Your task to perform on an android device: Open Youtube and go to the subscriptions tab Image 0: 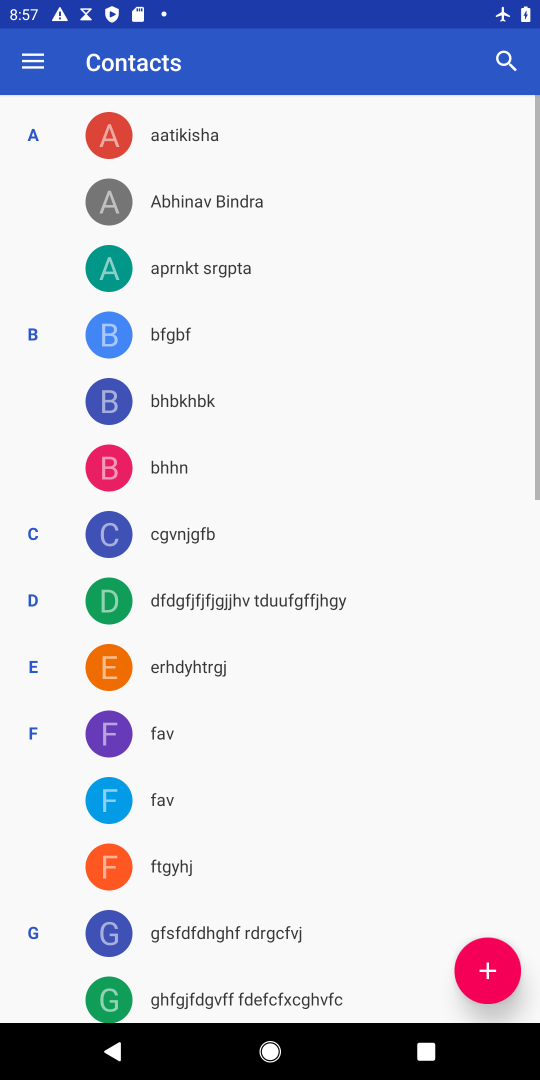
Step 0: press home button
Your task to perform on an android device: Open Youtube and go to the subscriptions tab Image 1: 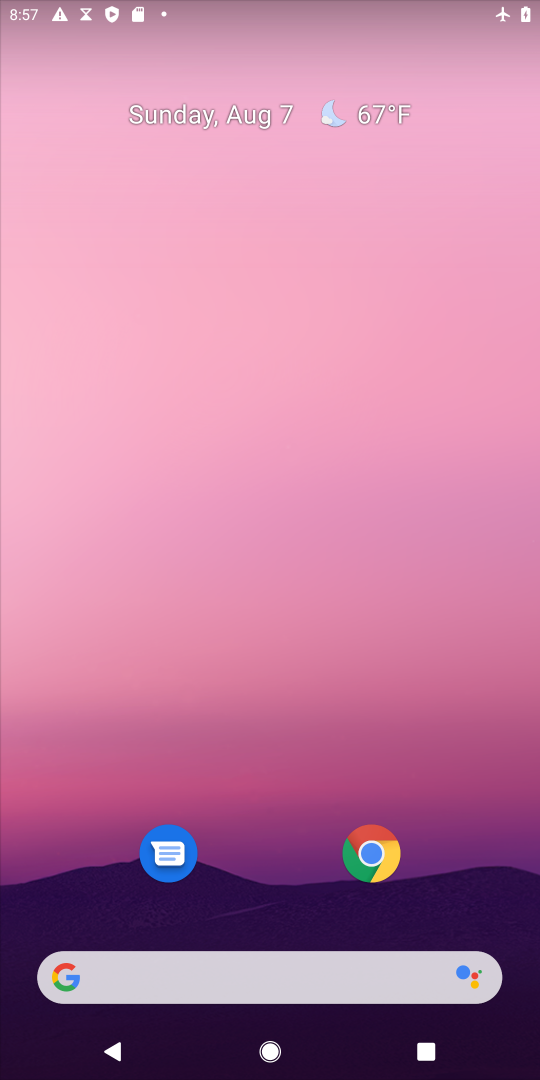
Step 1: drag from (262, 933) to (264, 129)
Your task to perform on an android device: Open Youtube and go to the subscriptions tab Image 2: 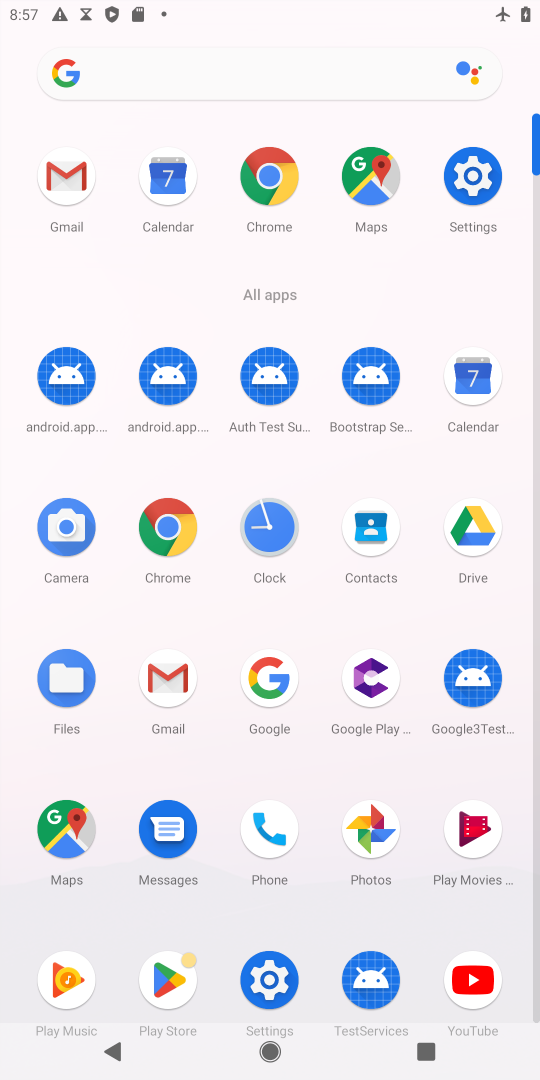
Step 2: drag from (292, 933) to (337, 368)
Your task to perform on an android device: Open Youtube and go to the subscriptions tab Image 3: 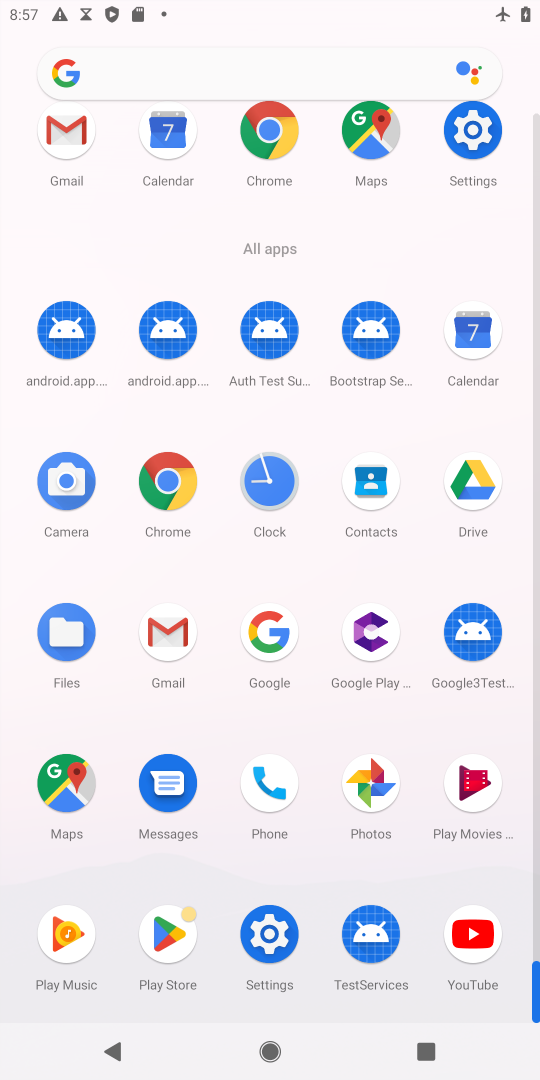
Step 3: click (464, 931)
Your task to perform on an android device: Open Youtube and go to the subscriptions tab Image 4: 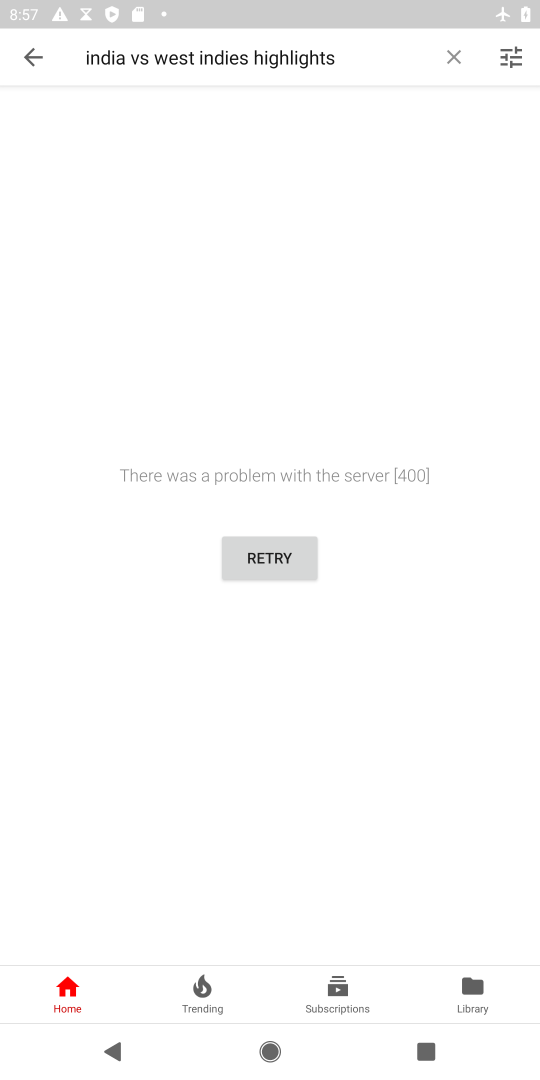
Step 4: click (332, 991)
Your task to perform on an android device: Open Youtube and go to the subscriptions tab Image 5: 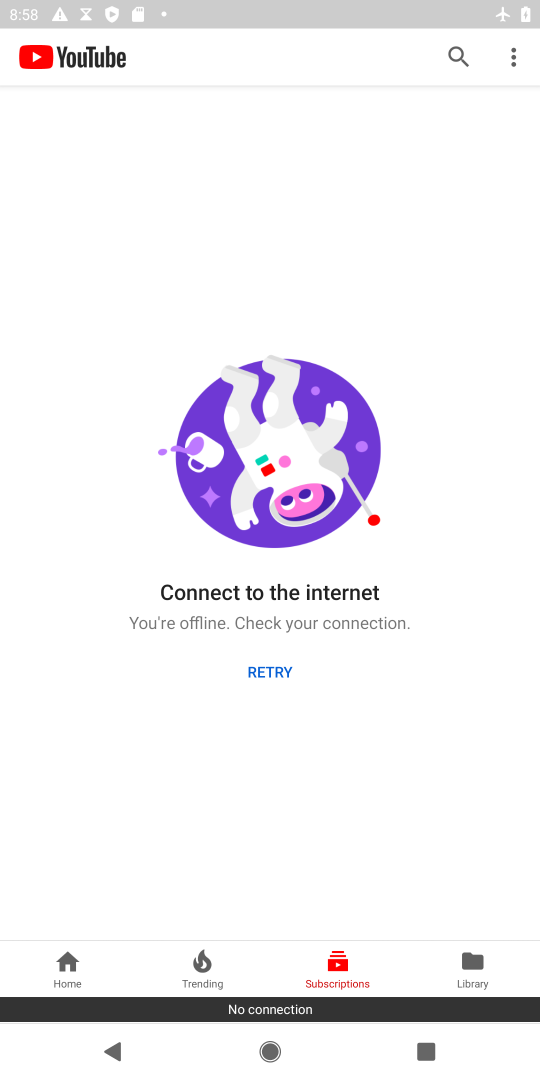
Step 5: task complete